Your task to perform on an android device: turn on sleep mode Image 0: 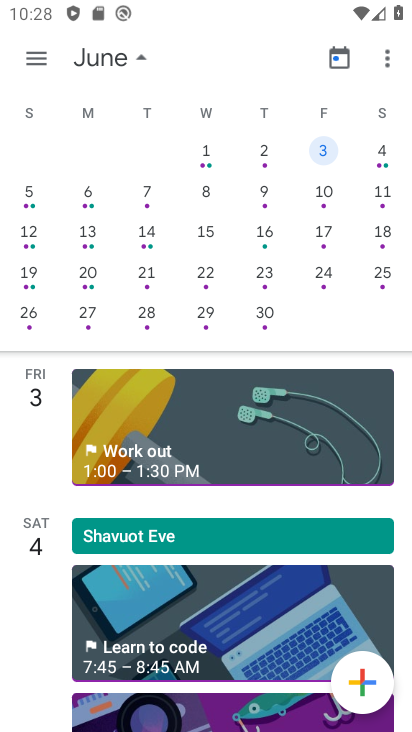
Step 0: press home button
Your task to perform on an android device: turn on sleep mode Image 1: 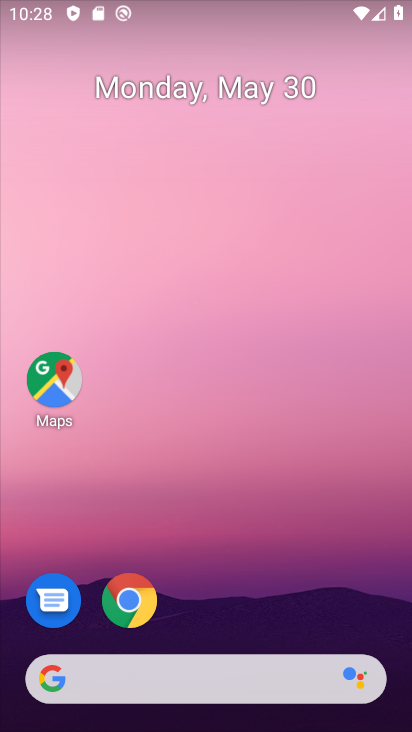
Step 1: drag from (257, 609) to (244, 50)
Your task to perform on an android device: turn on sleep mode Image 2: 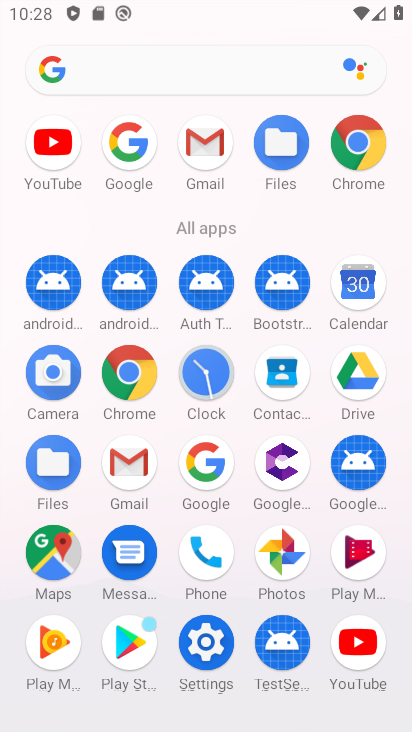
Step 2: click (209, 643)
Your task to perform on an android device: turn on sleep mode Image 3: 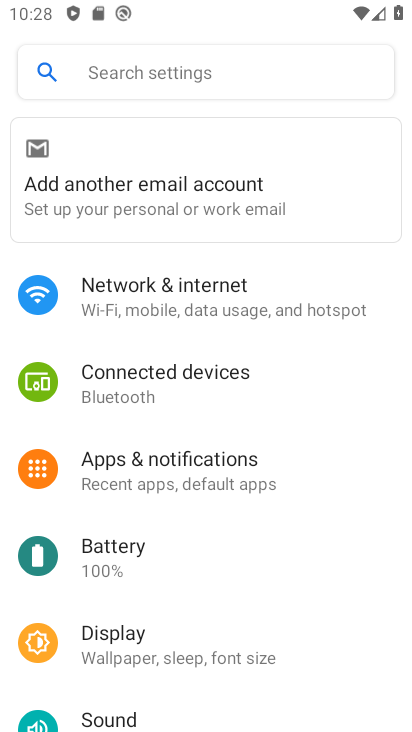
Step 3: click (159, 472)
Your task to perform on an android device: turn on sleep mode Image 4: 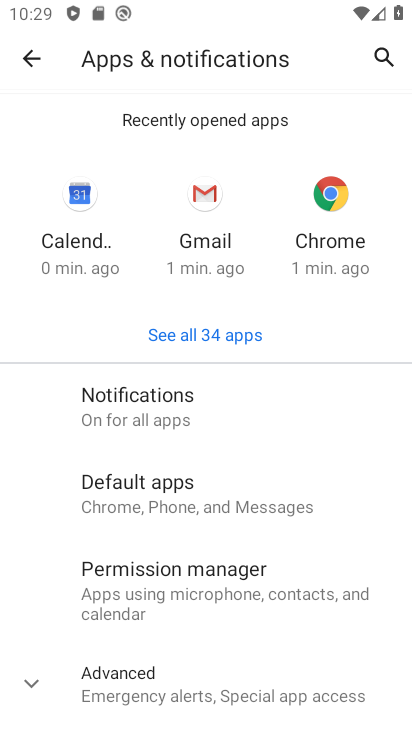
Step 4: click (34, 58)
Your task to perform on an android device: turn on sleep mode Image 5: 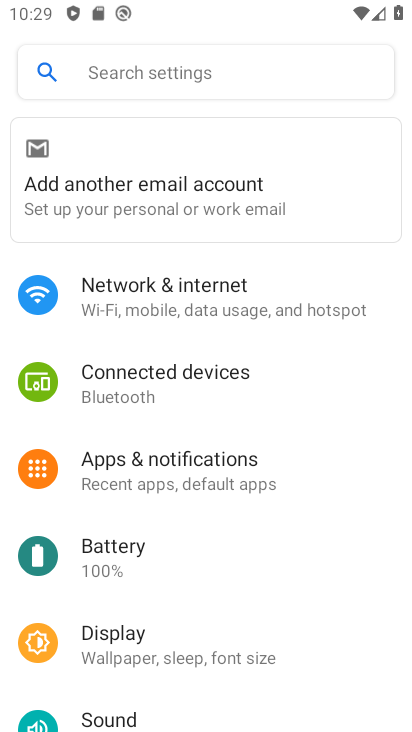
Step 5: task complete